Your task to perform on an android device: add a contact in the contacts app Image 0: 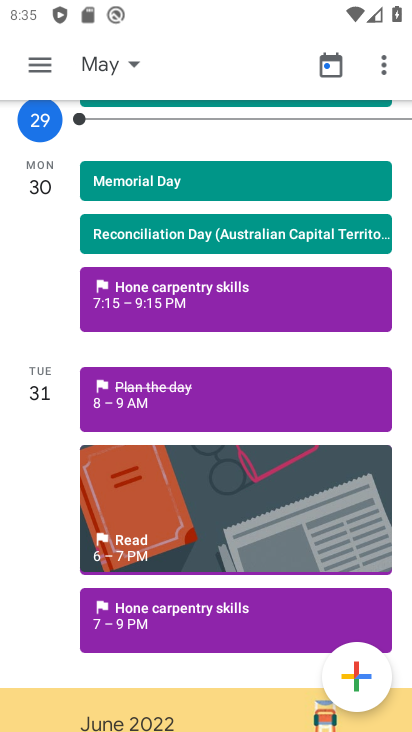
Step 0: press home button
Your task to perform on an android device: add a contact in the contacts app Image 1: 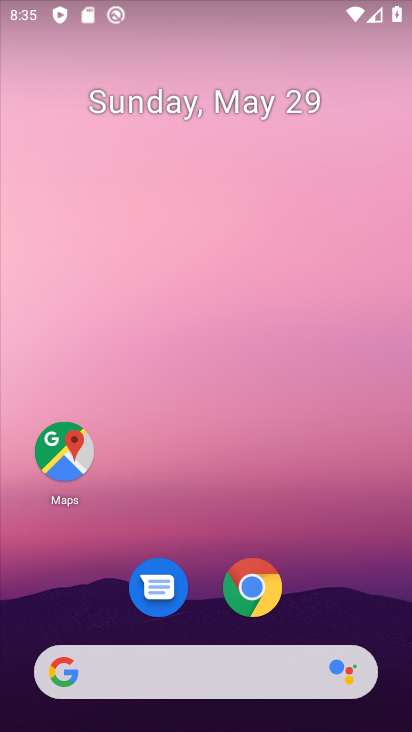
Step 1: drag from (207, 611) to (258, 28)
Your task to perform on an android device: add a contact in the contacts app Image 2: 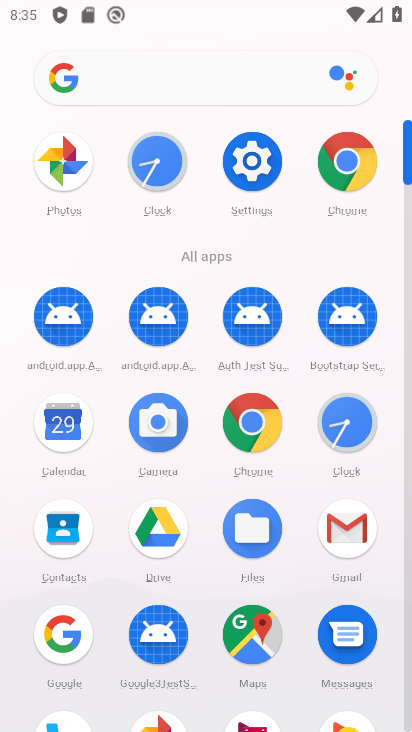
Step 2: click (74, 534)
Your task to perform on an android device: add a contact in the contacts app Image 3: 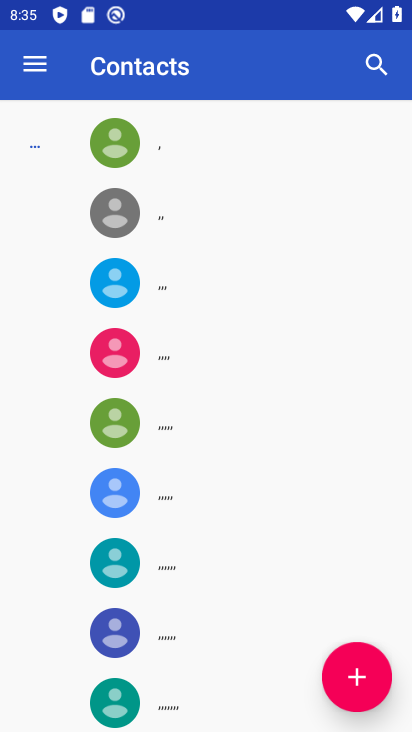
Step 3: click (362, 704)
Your task to perform on an android device: add a contact in the contacts app Image 4: 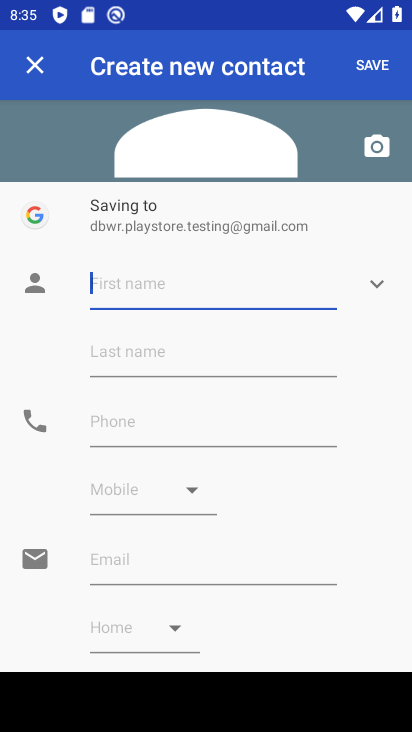
Step 4: type "okijhbgvcx"
Your task to perform on an android device: add a contact in the contacts app Image 5: 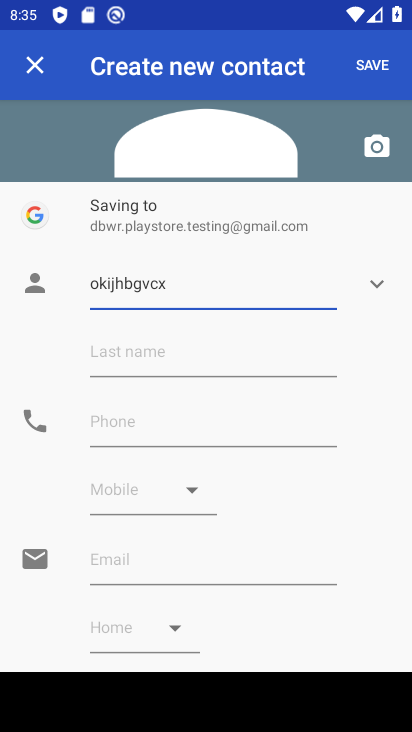
Step 5: click (122, 408)
Your task to perform on an android device: add a contact in the contacts app Image 6: 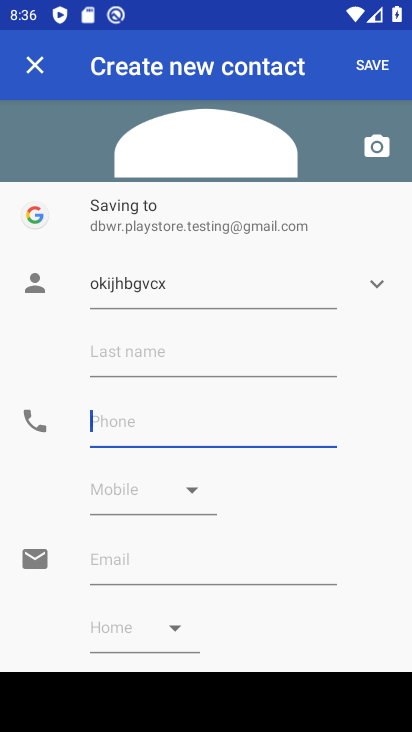
Step 6: type "9876543w2"
Your task to perform on an android device: add a contact in the contacts app Image 7: 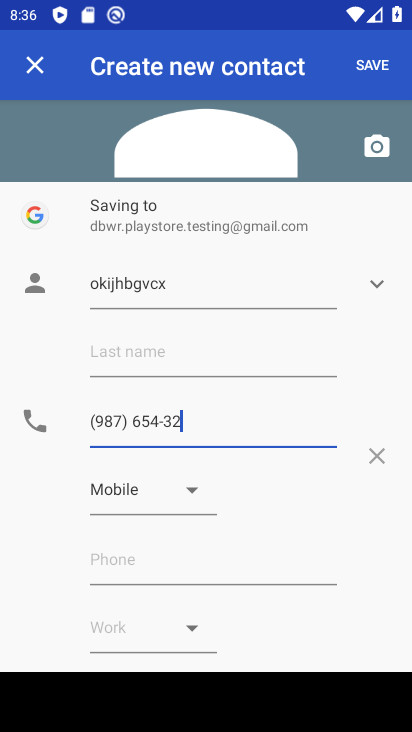
Step 7: click (369, 80)
Your task to perform on an android device: add a contact in the contacts app Image 8: 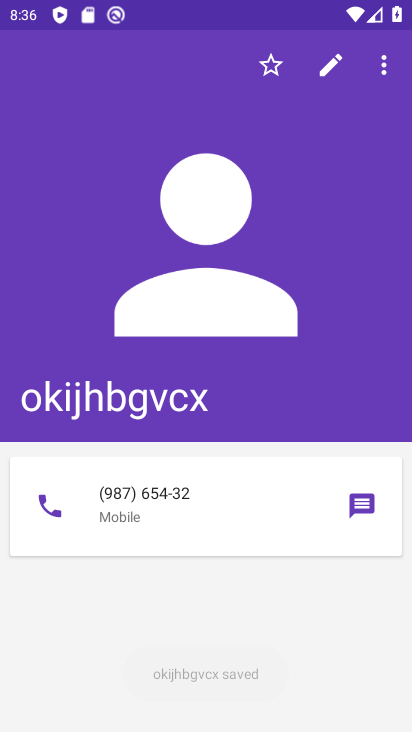
Step 8: task complete